Your task to perform on an android device: Open notification settings Image 0: 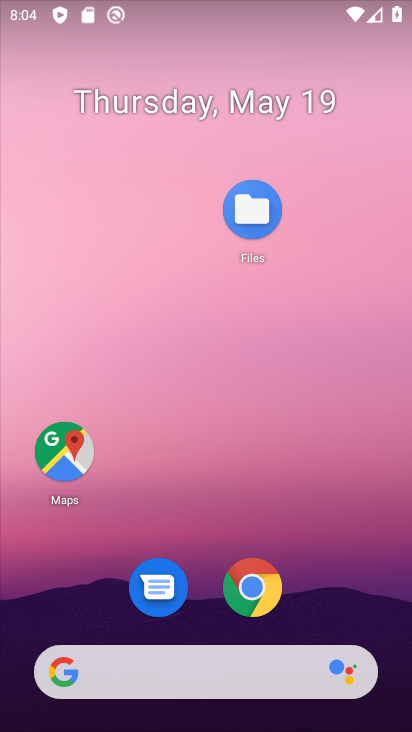
Step 0: drag from (316, 721) to (191, 270)
Your task to perform on an android device: Open notification settings Image 1: 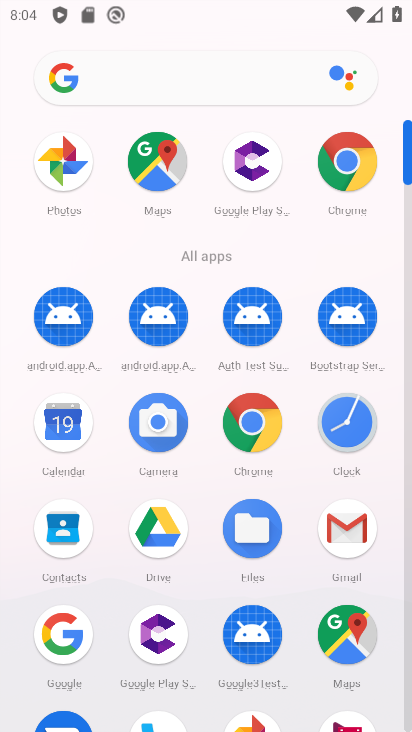
Step 1: drag from (205, 593) to (177, 194)
Your task to perform on an android device: Open notification settings Image 2: 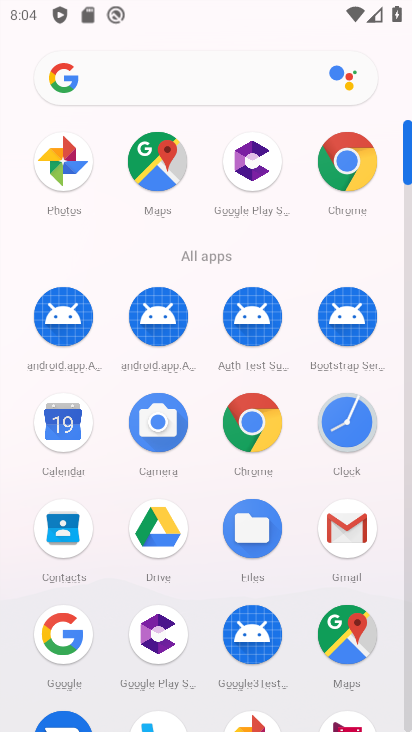
Step 2: drag from (216, 476) to (219, 177)
Your task to perform on an android device: Open notification settings Image 3: 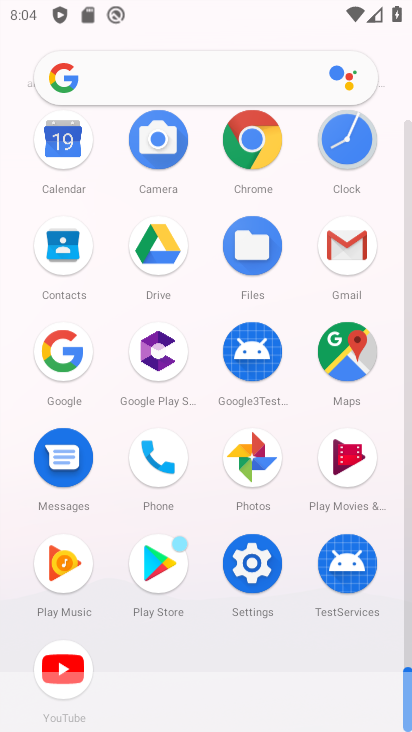
Step 3: drag from (261, 554) to (247, 229)
Your task to perform on an android device: Open notification settings Image 4: 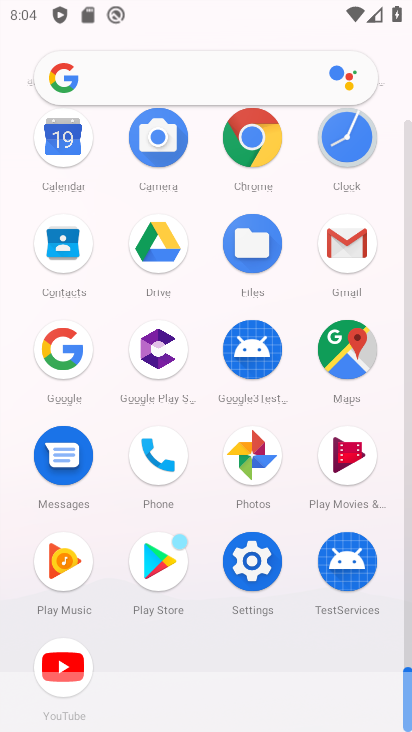
Step 4: click (251, 576)
Your task to perform on an android device: Open notification settings Image 5: 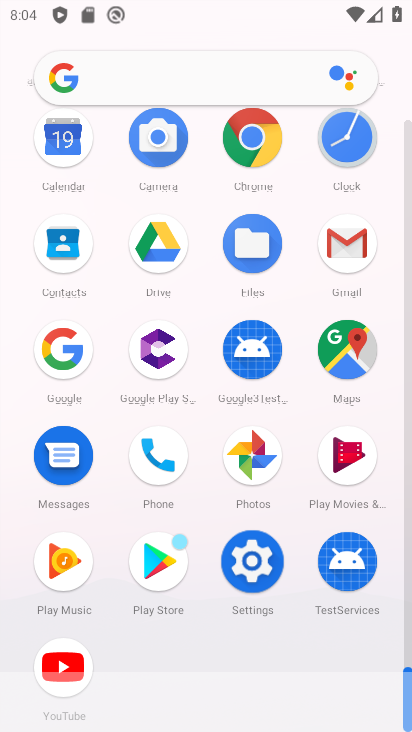
Step 5: click (254, 553)
Your task to perform on an android device: Open notification settings Image 6: 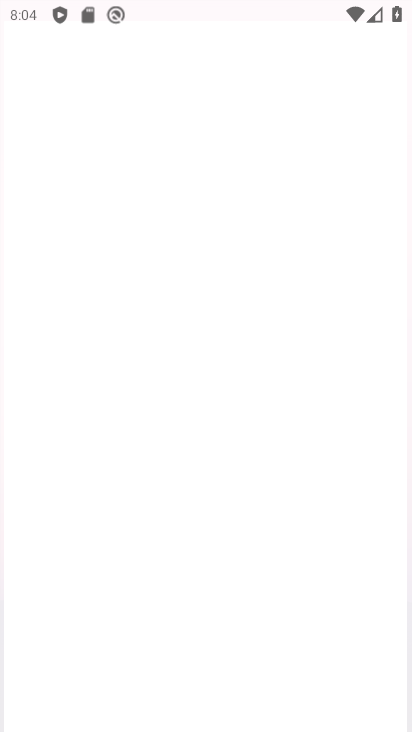
Step 6: click (254, 553)
Your task to perform on an android device: Open notification settings Image 7: 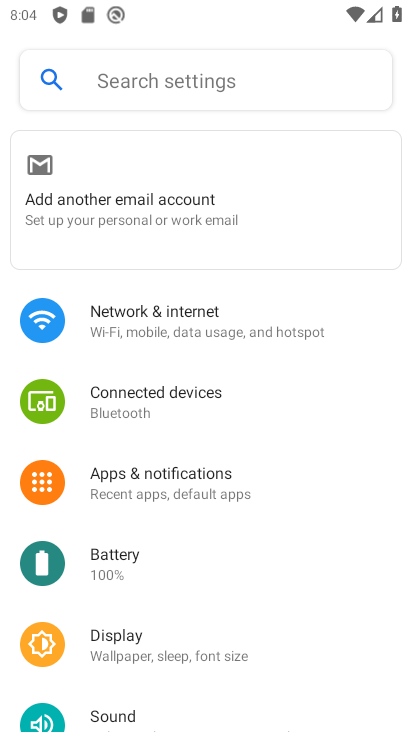
Step 7: click (159, 475)
Your task to perform on an android device: Open notification settings Image 8: 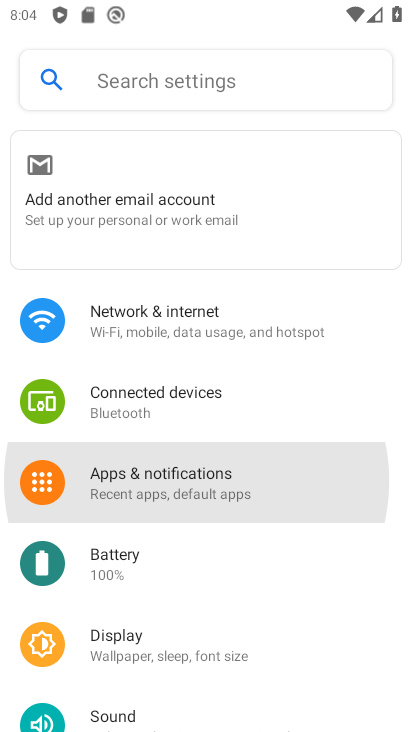
Step 8: click (159, 475)
Your task to perform on an android device: Open notification settings Image 9: 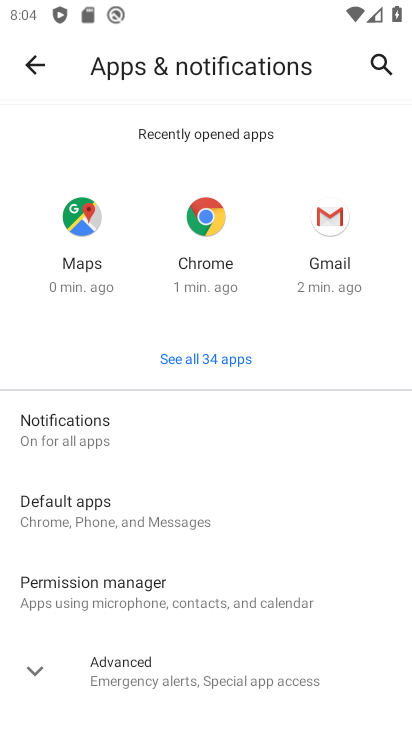
Step 9: drag from (169, 603) to (122, 363)
Your task to perform on an android device: Open notification settings Image 10: 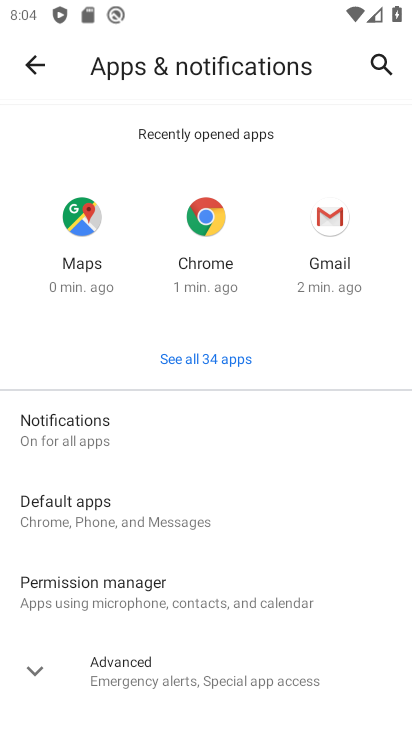
Step 10: click (55, 417)
Your task to perform on an android device: Open notification settings Image 11: 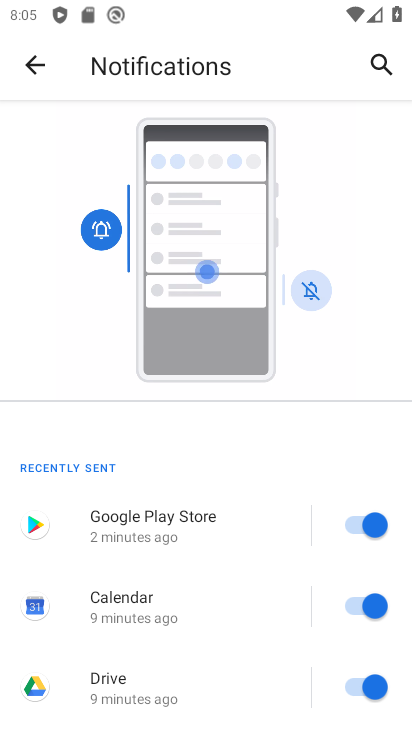
Step 11: task complete